Your task to perform on an android device: open app "Spotify: Music and Podcasts" Image 0: 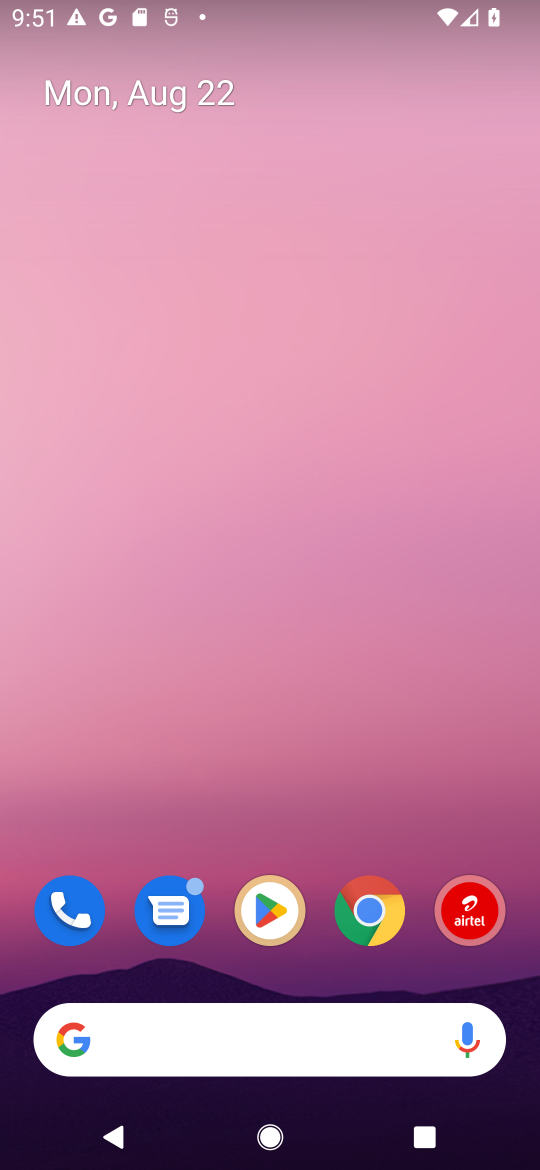
Step 0: click (267, 905)
Your task to perform on an android device: open app "Spotify: Music and Podcasts" Image 1: 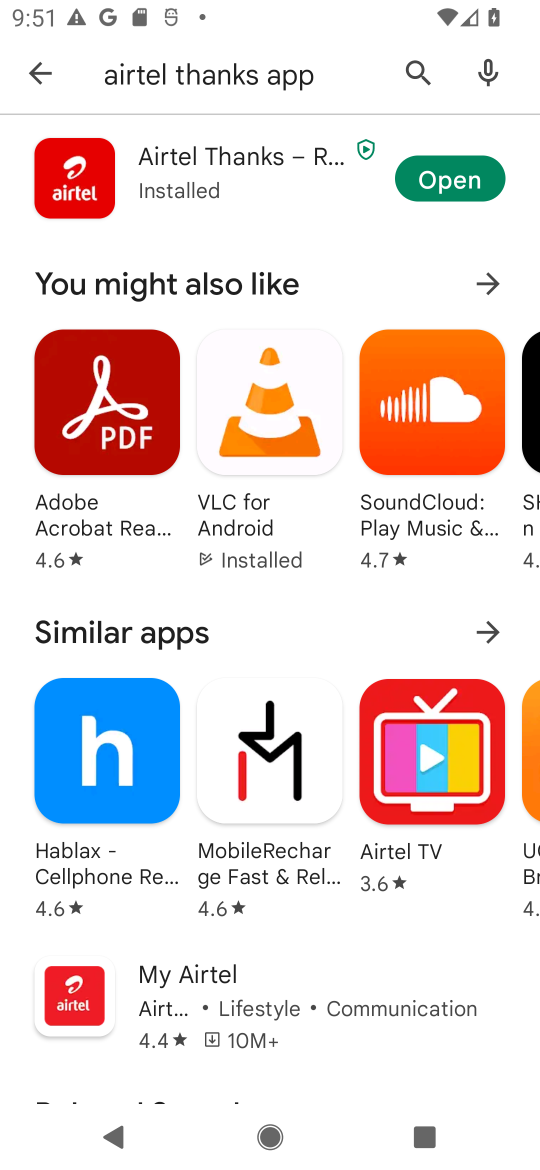
Step 1: click (404, 71)
Your task to perform on an android device: open app "Spotify: Music and Podcasts" Image 2: 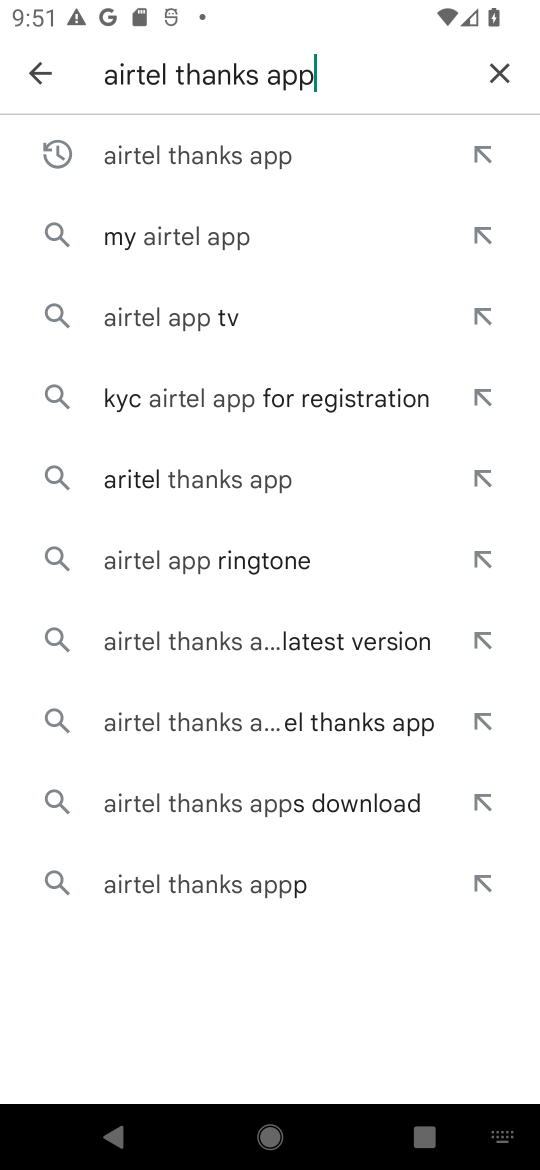
Step 2: click (486, 69)
Your task to perform on an android device: open app "Spotify: Music and Podcasts" Image 3: 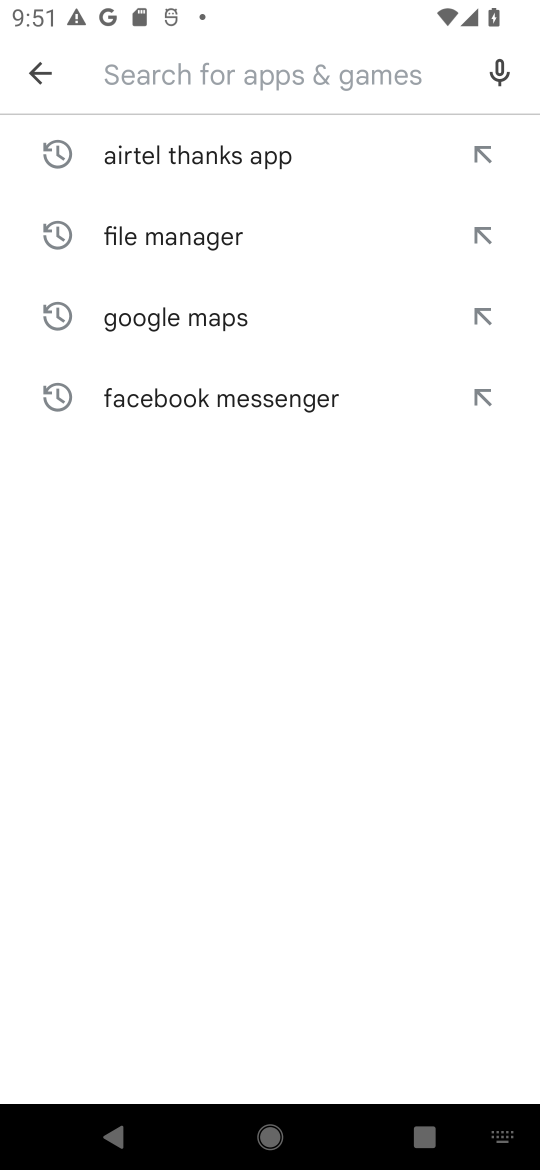
Step 3: type "Spotify: Music and Podcasts"
Your task to perform on an android device: open app "Spotify: Music and Podcasts" Image 4: 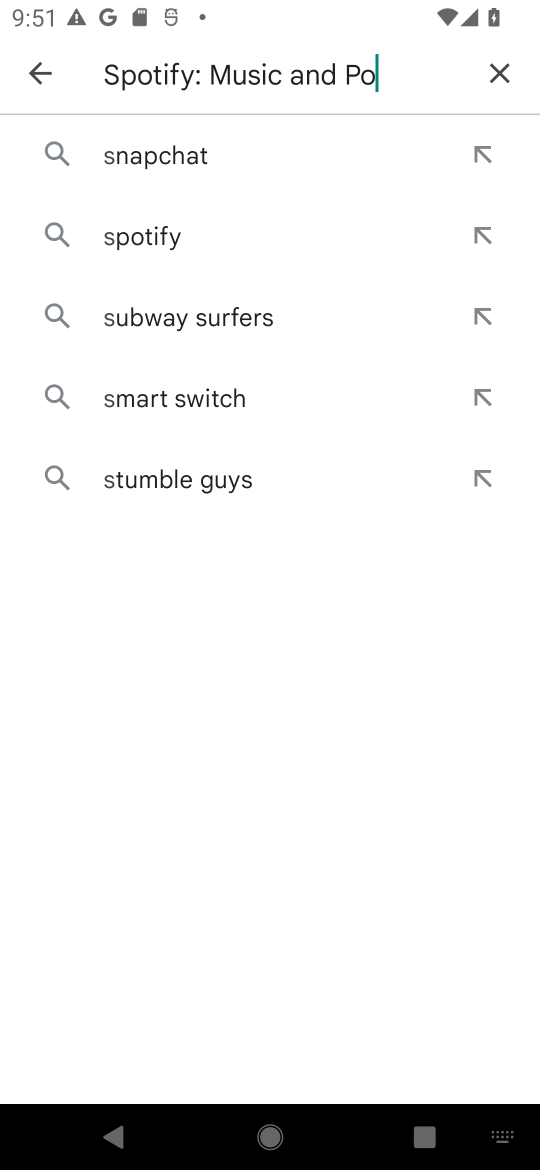
Step 4: type ""
Your task to perform on an android device: open app "Spotify: Music and Podcasts" Image 5: 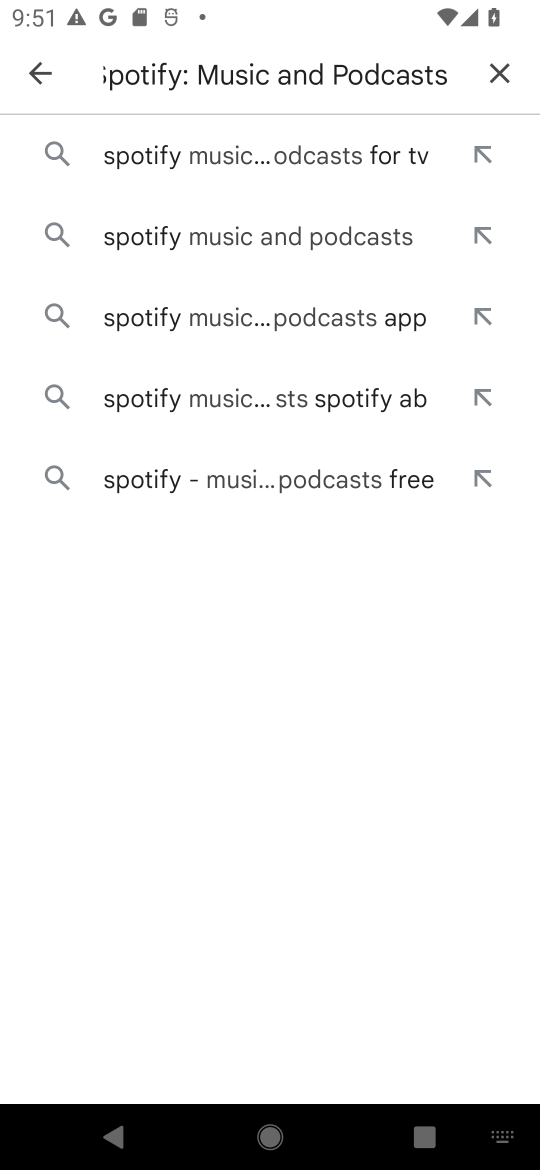
Step 5: click (224, 159)
Your task to perform on an android device: open app "Spotify: Music and Podcasts" Image 6: 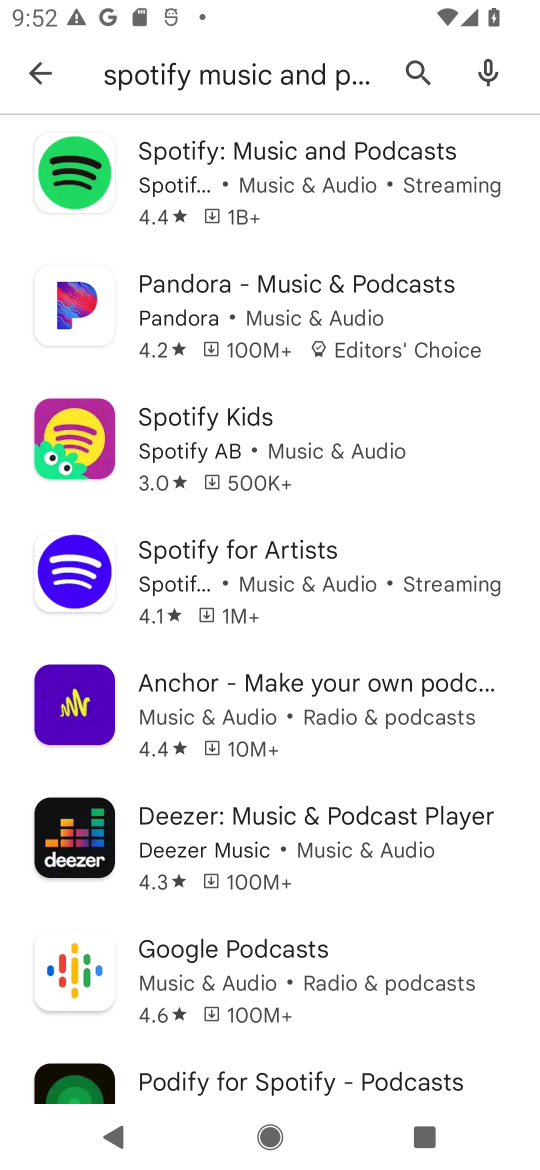
Step 6: click (250, 157)
Your task to perform on an android device: open app "Spotify: Music and Podcasts" Image 7: 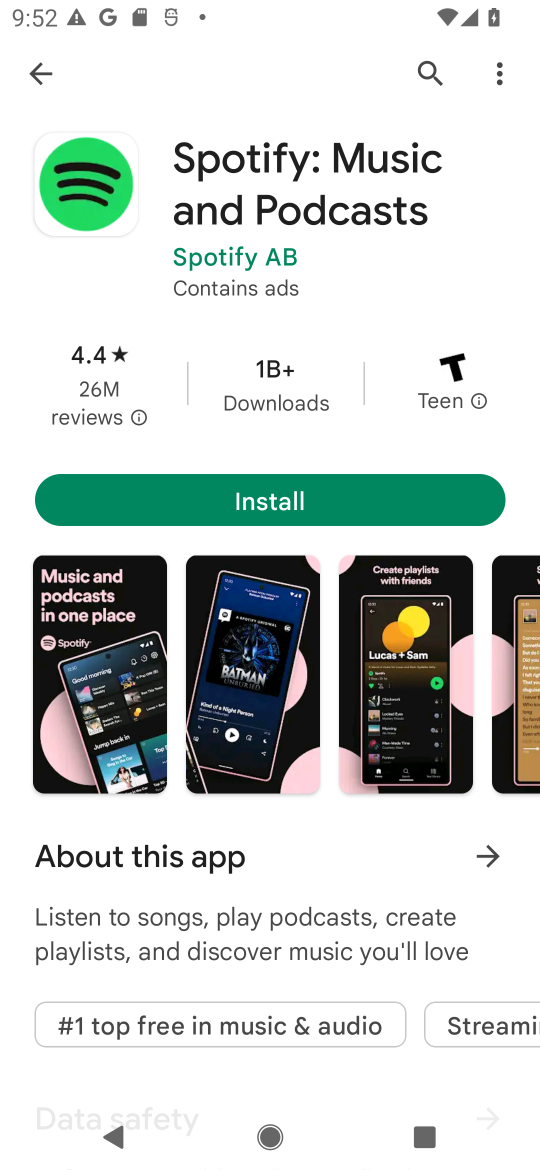
Step 7: task complete